Your task to perform on an android device: Open Yahoo.com Image 0: 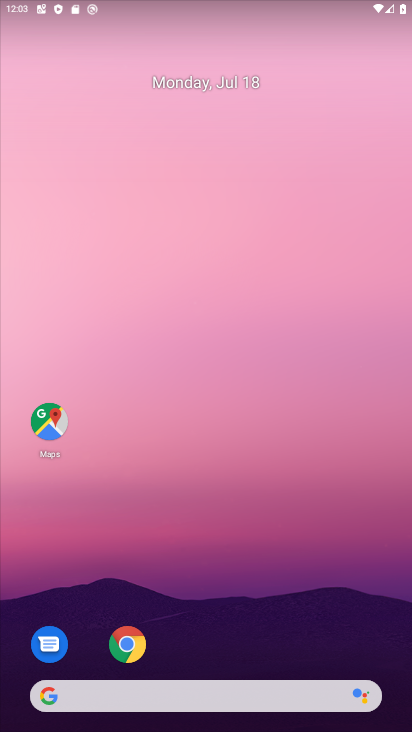
Step 0: drag from (284, 590) to (293, 115)
Your task to perform on an android device: Open Yahoo.com Image 1: 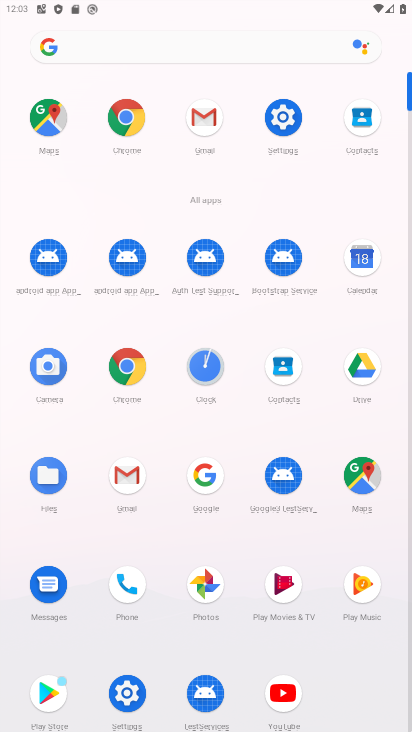
Step 1: click (120, 118)
Your task to perform on an android device: Open Yahoo.com Image 2: 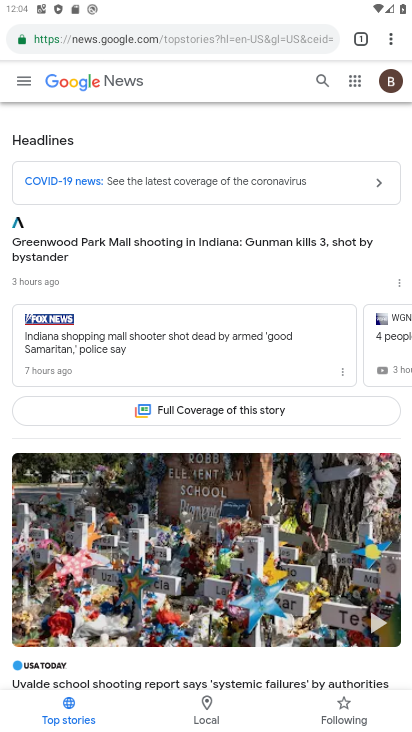
Step 2: click (225, 41)
Your task to perform on an android device: Open Yahoo.com Image 3: 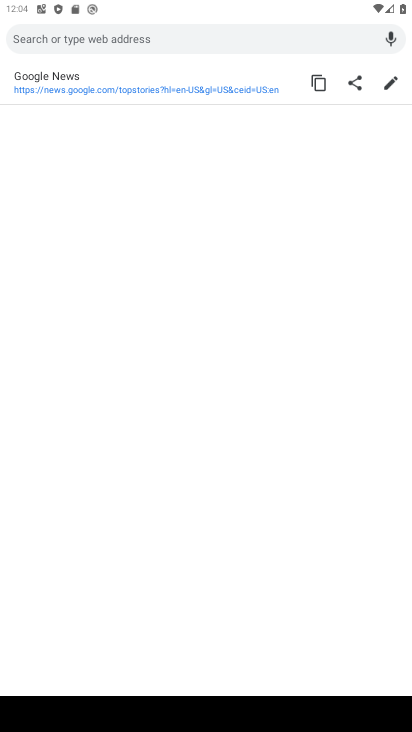
Step 3: type "yahoo.com"
Your task to perform on an android device: Open Yahoo.com Image 4: 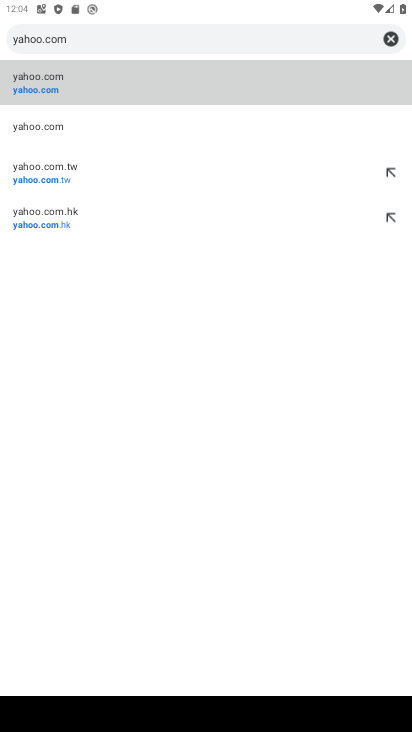
Step 4: click (41, 80)
Your task to perform on an android device: Open Yahoo.com Image 5: 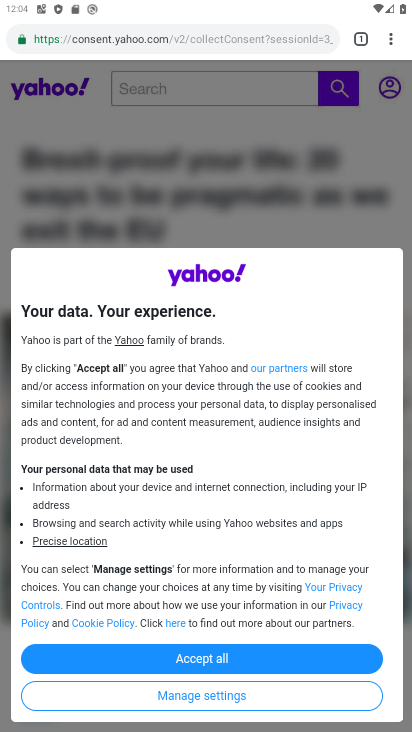
Step 5: task complete